Your task to perform on an android device: Search for Mexican restaurants on Maps Image 0: 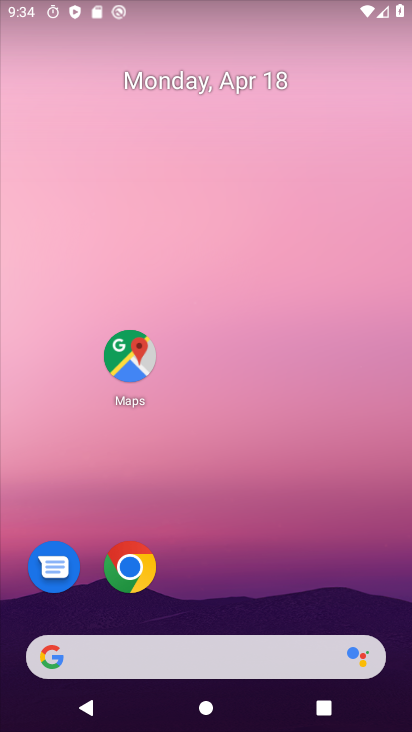
Step 0: click (275, 420)
Your task to perform on an android device: Search for Mexican restaurants on Maps Image 1: 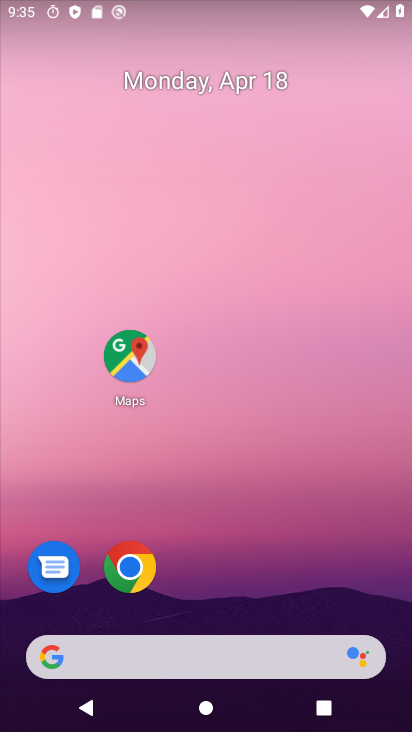
Step 1: click (140, 359)
Your task to perform on an android device: Search for Mexican restaurants on Maps Image 2: 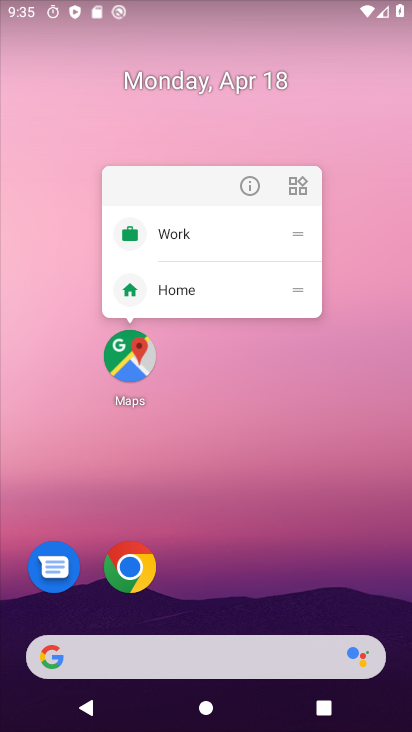
Step 2: drag from (260, 680) to (329, 259)
Your task to perform on an android device: Search for Mexican restaurants on Maps Image 3: 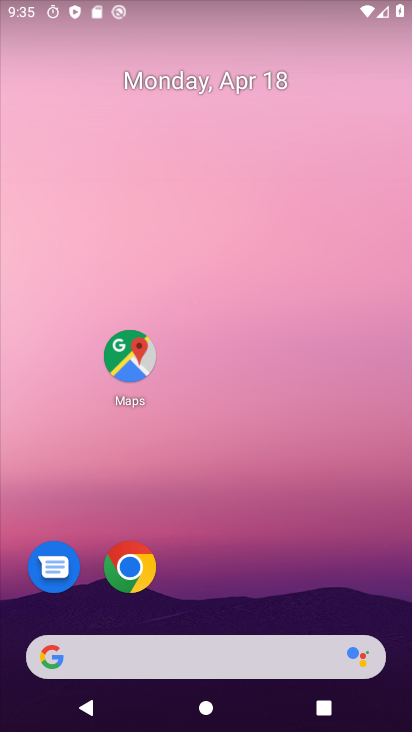
Step 3: drag from (245, 690) to (152, 309)
Your task to perform on an android device: Search for Mexican restaurants on Maps Image 4: 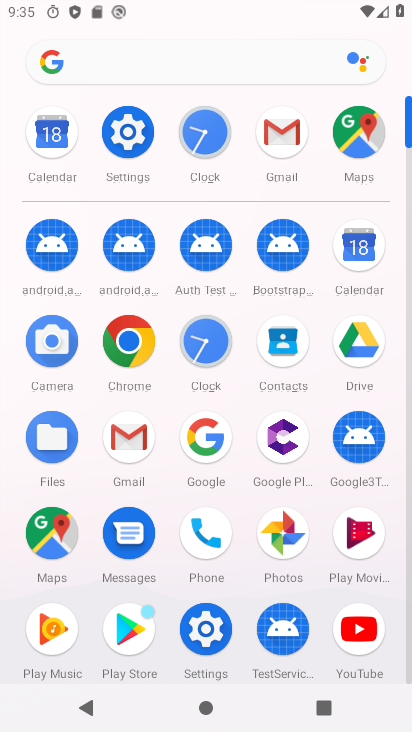
Step 4: click (344, 155)
Your task to perform on an android device: Search for Mexican restaurants on Maps Image 5: 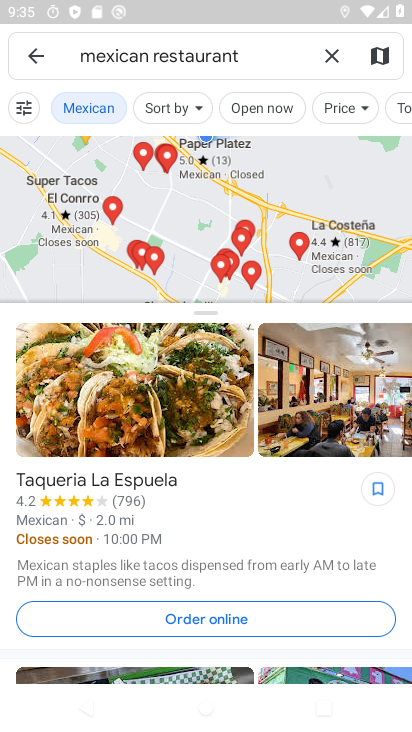
Step 5: click (270, 75)
Your task to perform on an android device: Search for Mexican restaurants on Maps Image 6: 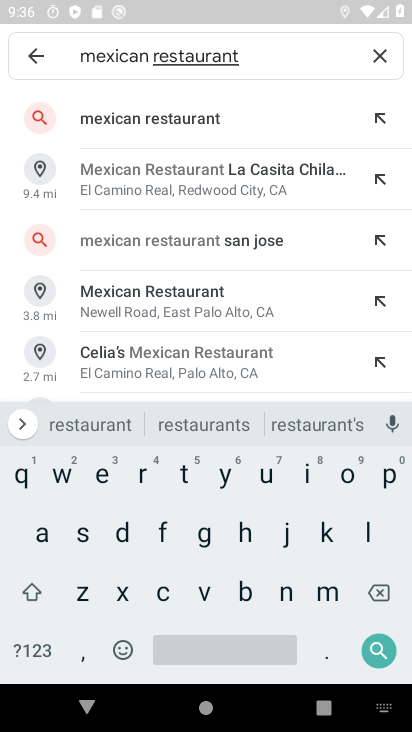
Step 6: click (369, 641)
Your task to perform on an android device: Search for Mexican restaurants on Maps Image 7: 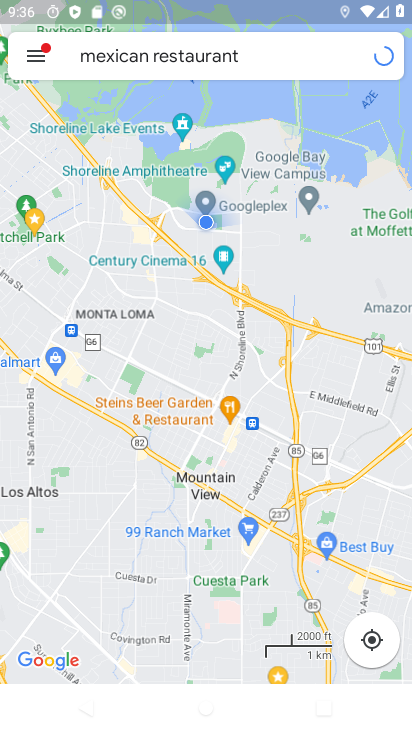
Step 7: task complete